Your task to perform on an android device: find photos in the google photos app Image 0: 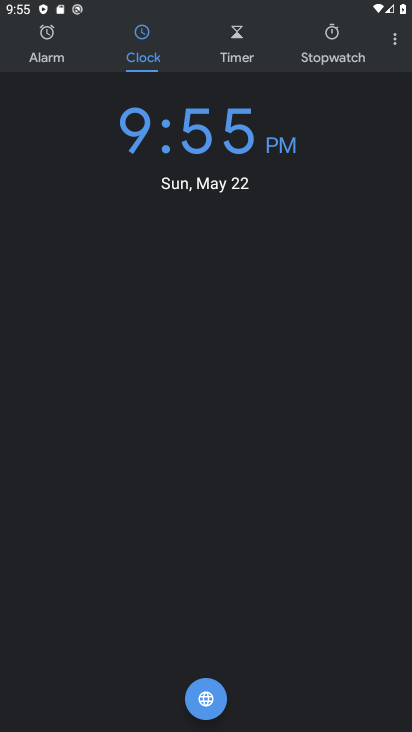
Step 0: press home button
Your task to perform on an android device: find photos in the google photos app Image 1: 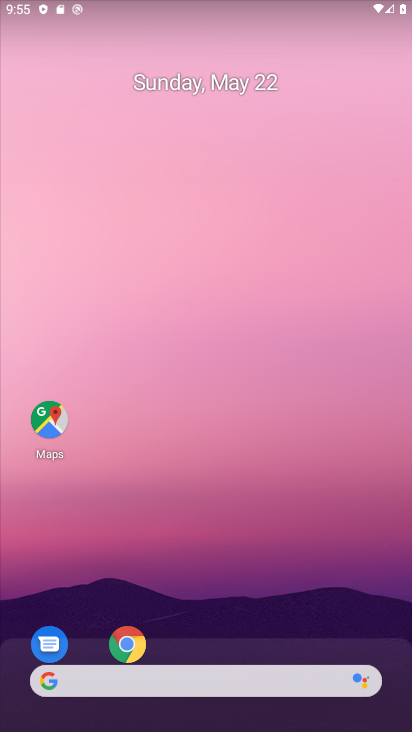
Step 1: drag from (121, 663) to (189, 240)
Your task to perform on an android device: find photos in the google photos app Image 2: 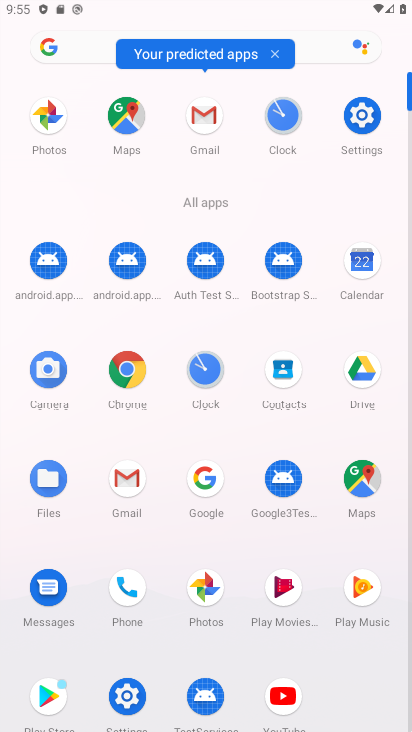
Step 2: click (204, 585)
Your task to perform on an android device: find photos in the google photos app Image 3: 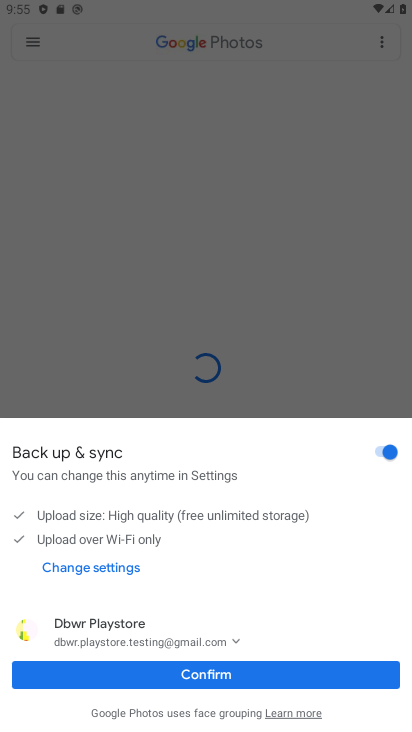
Step 3: click (197, 680)
Your task to perform on an android device: find photos in the google photos app Image 4: 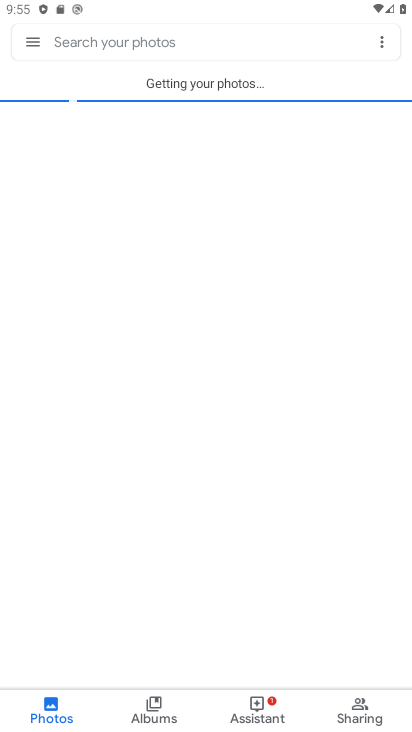
Step 4: click (200, 45)
Your task to perform on an android device: find photos in the google photos app Image 5: 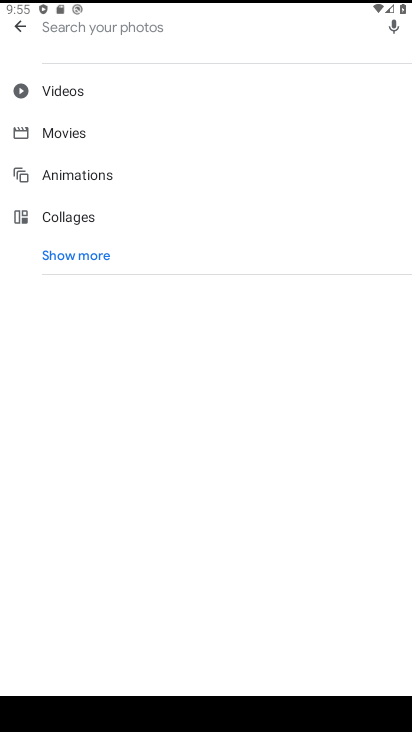
Step 5: type "fav"
Your task to perform on an android device: find photos in the google photos app Image 6: 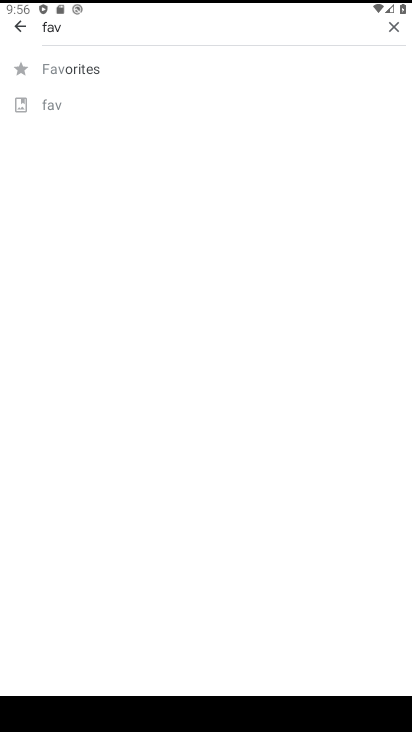
Step 6: click (106, 67)
Your task to perform on an android device: find photos in the google photos app Image 7: 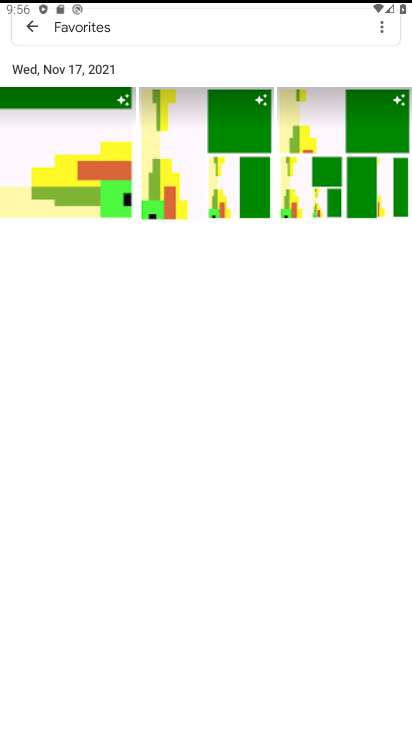
Step 7: click (62, 180)
Your task to perform on an android device: find photos in the google photos app Image 8: 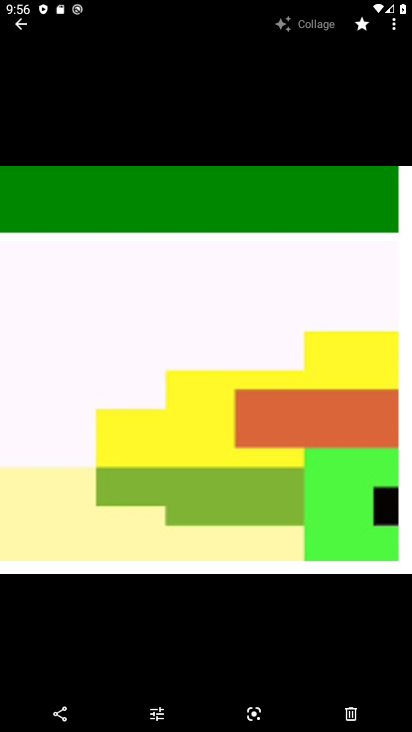
Step 8: task complete